Your task to perform on an android device: turn off priority inbox in the gmail app Image 0: 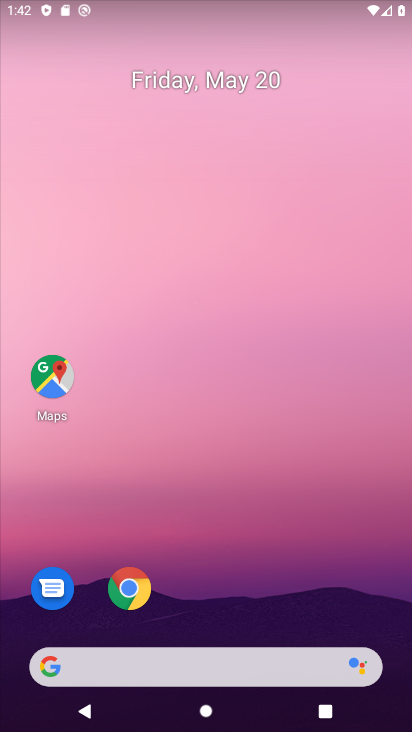
Step 0: drag from (212, 598) to (135, 2)
Your task to perform on an android device: turn off priority inbox in the gmail app Image 1: 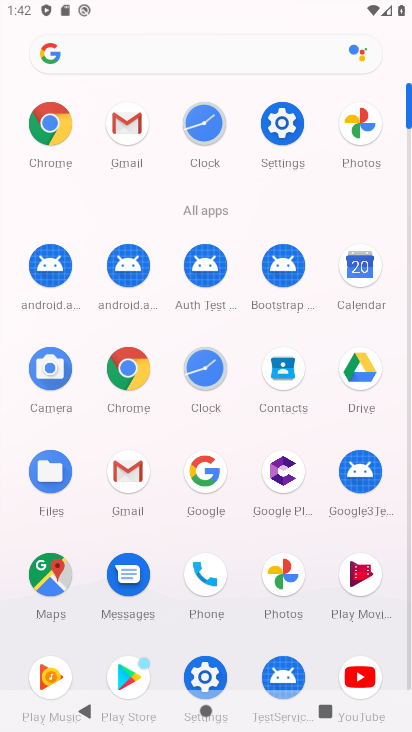
Step 1: click (135, 129)
Your task to perform on an android device: turn off priority inbox in the gmail app Image 2: 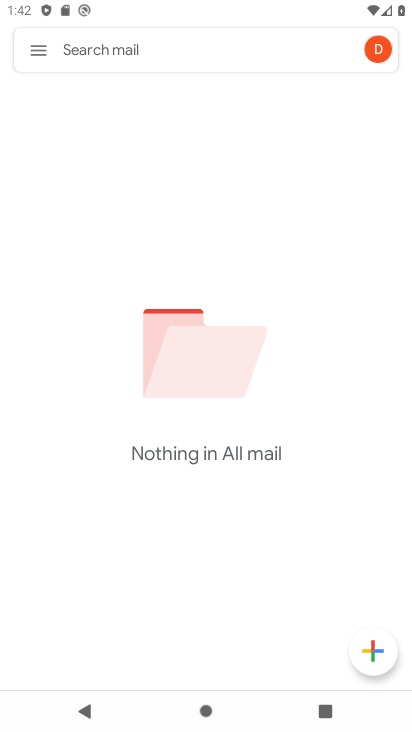
Step 2: click (30, 54)
Your task to perform on an android device: turn off priority inbox in the gmail app Image 3: 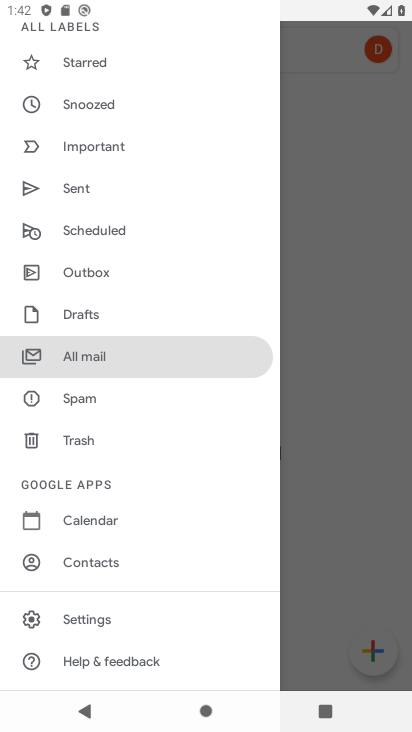
Step 3: click (82, 614)
Your task to perform on an android device: turn off priority inbox in the gmail app Image 4: 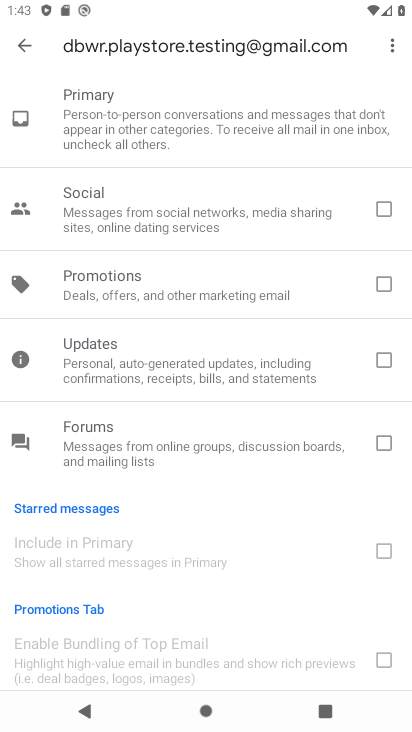
Step 4: drag from (153, 108) to (37, 659)
Your task to perform on an android device: turn off priority inbox in the gmail app Image 5: 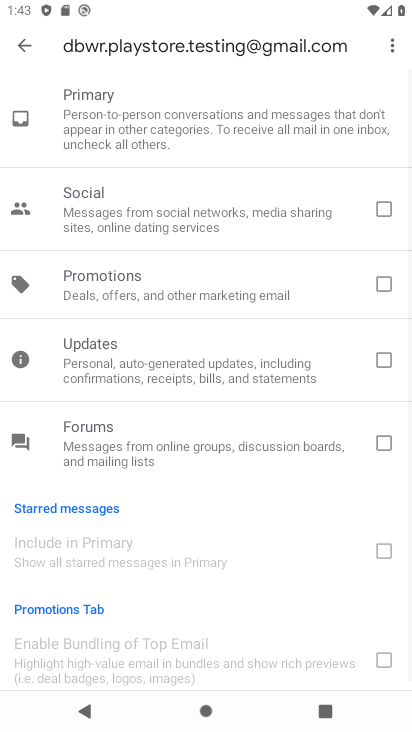
Step 5: click (16, 46)
Your task to perform on an android device: turn off priority inbox in the gmail app Image 6: 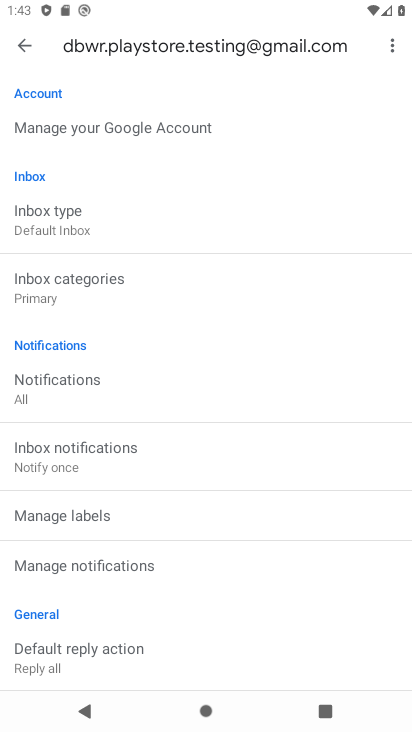
Step 6: click (53, 215)
Your task to perform on an android device: turn off priority inbox in the gmail app Image 7: 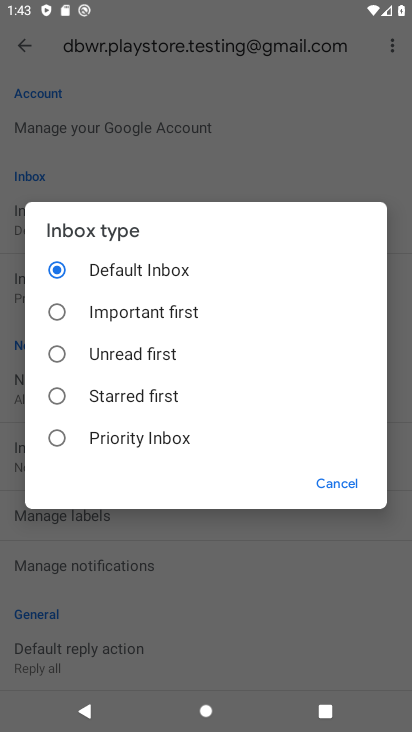
Step 7: click (148, 274)
Your task to perform on an android device: turn off priority inbox in the gmail app Image 8: 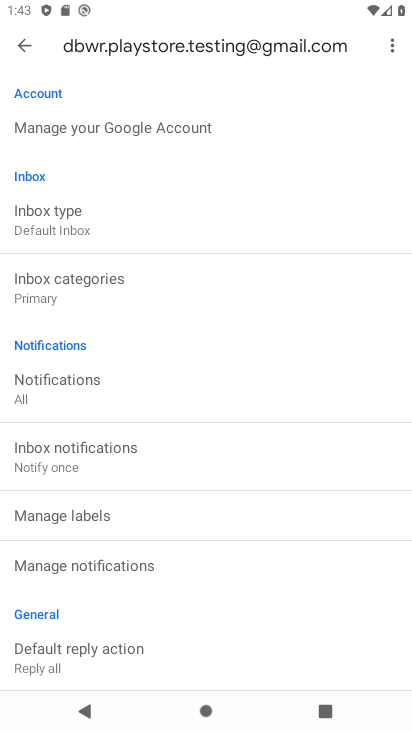
Step 8: task complete